Your task to perform on an android device: check android version Image 0: 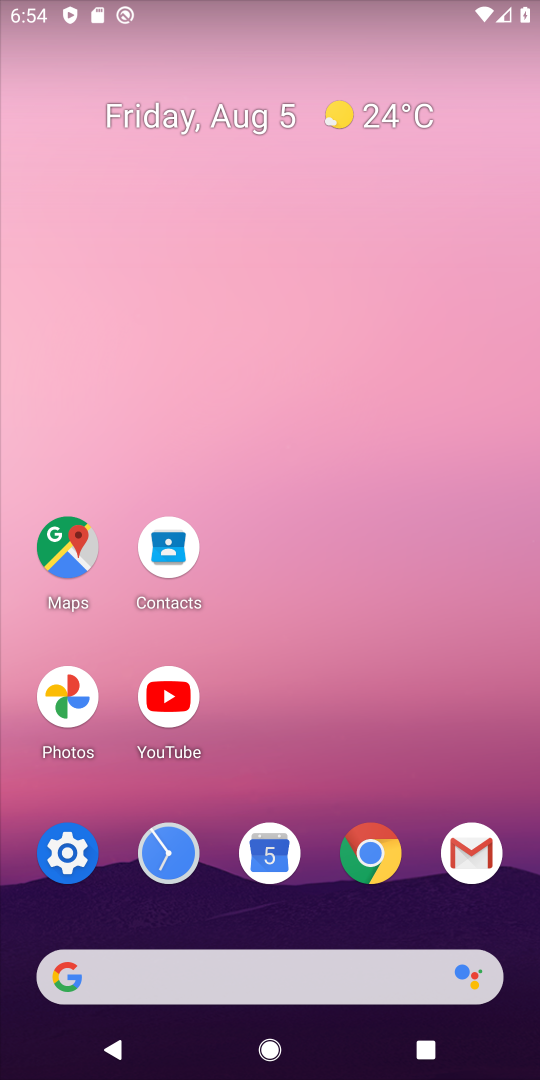
Step 0: click (64, 852)
Your task to perform on an android device: check android version Image 1: 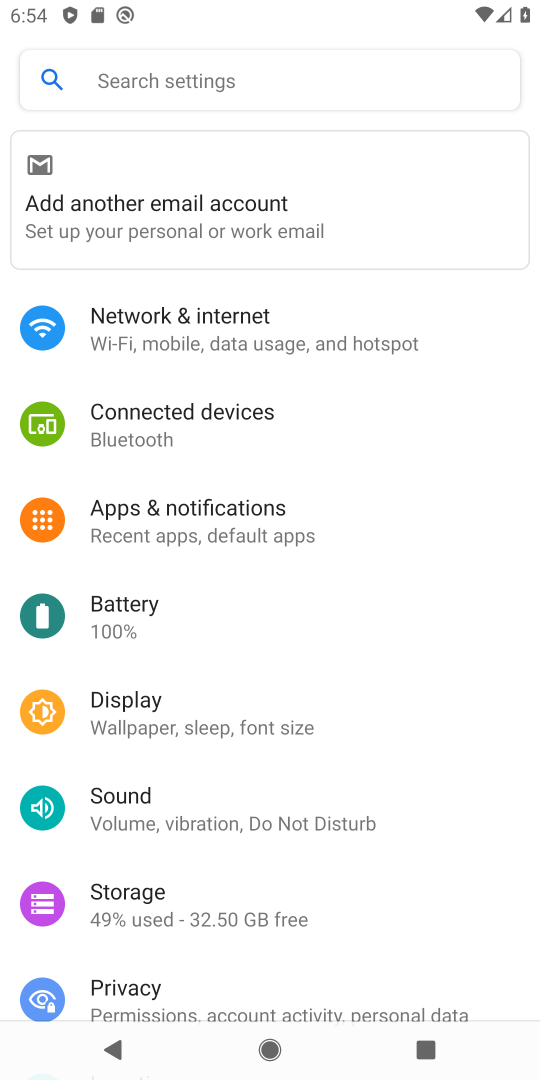
Step 1: drag from (416, 945) to (404, 380)
Your task to perform on an android device: check android version Image 2: 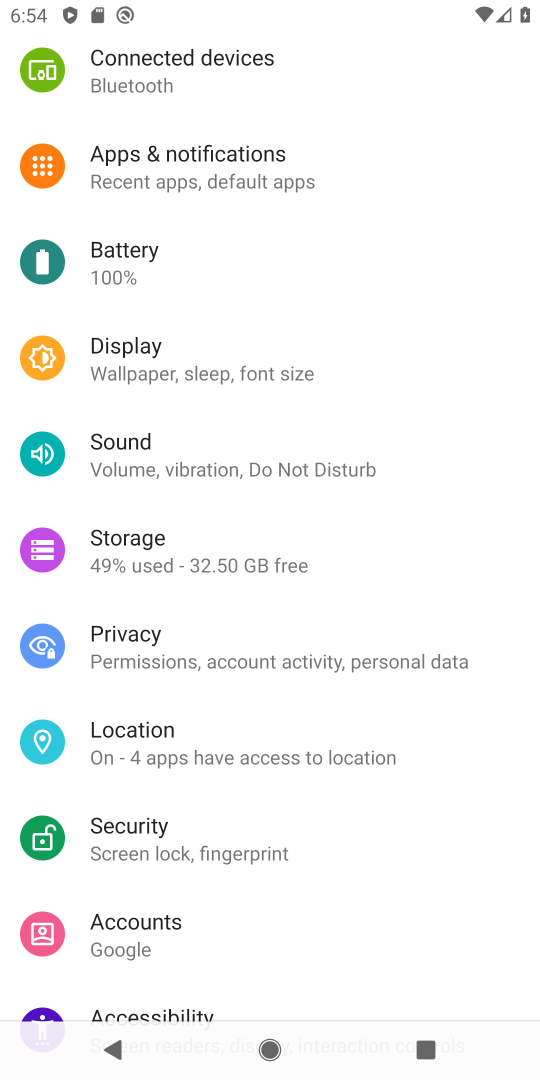
Step 2: drag from (310, 960) to (246, 404)
Your task to perform on an android device: check android version Image 3: 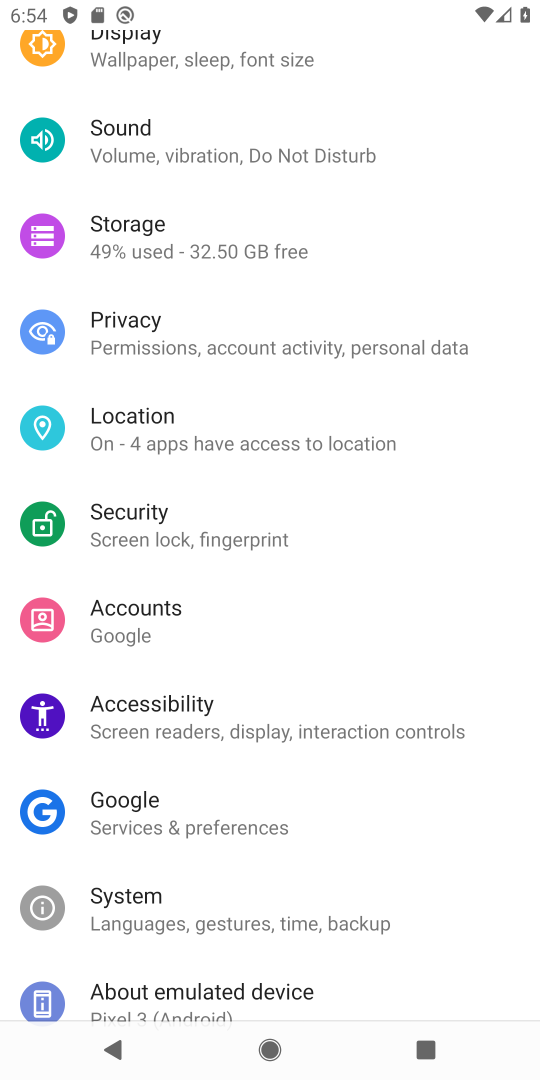
Step 3: click (168, 990)
Your task to perform on an android device: check android version Image 4: 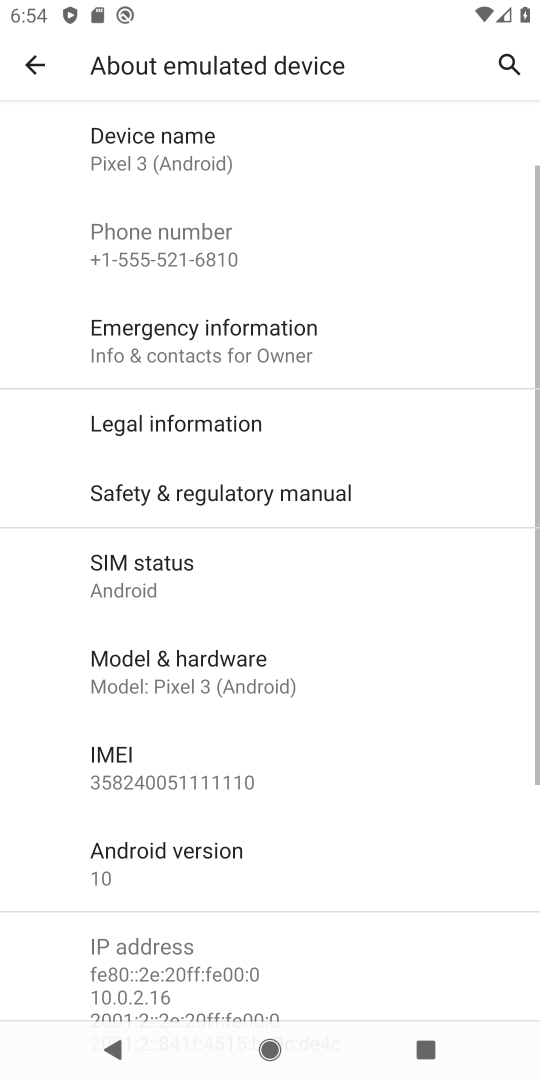
Step 4: click (194, 849)
Your task to perform on an android device: check android version Image 5: 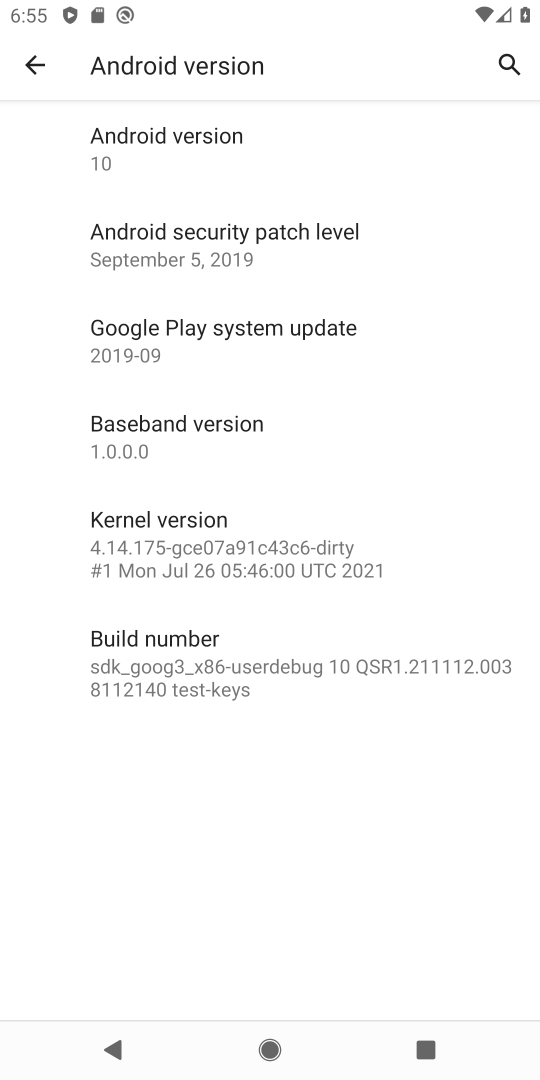
Step 5: task complete